Your task to perform on an android device: Go to Android settings Image 0: 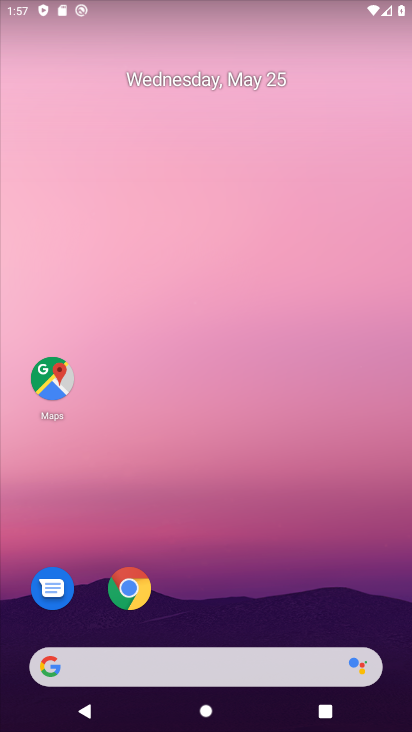
Step 0: drag from (215, 595) to (201, 11)
Your task to perform on an android device: Go to Android settings Image 1: 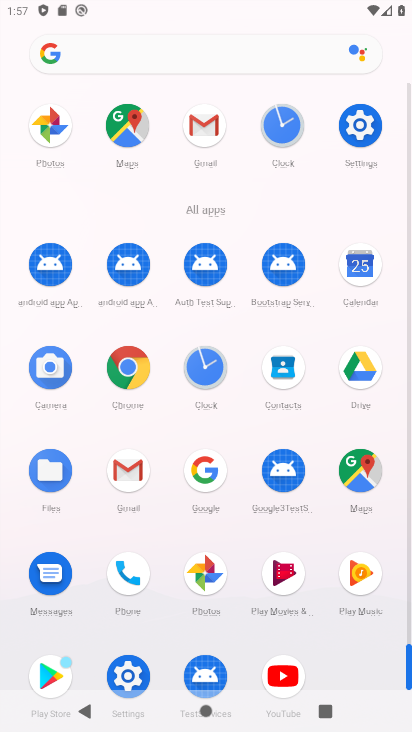
Step 1: drag from (7, 457) to (8, 243)
Your task to perform on an android device: Go to Android settings Image 2: 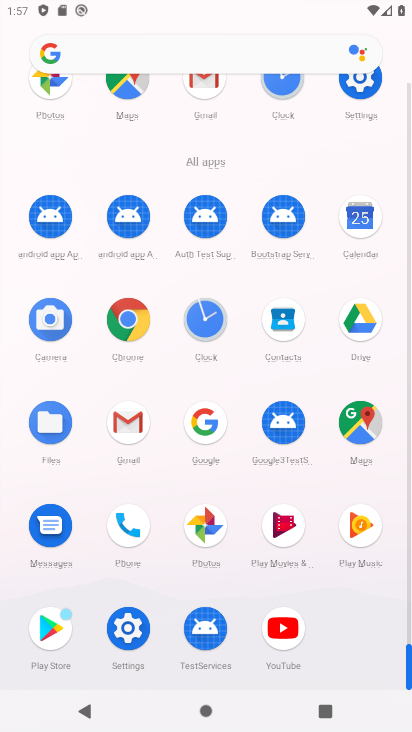
Step 2: click (124, 624)
Your task to perform on an android device: Go to Android settings Image 3: 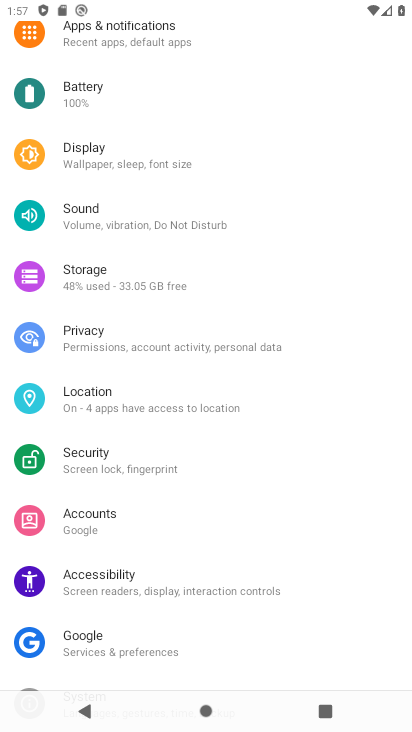
Step 3: task complete